Your task to perform on an android device: add a contact Image 0: 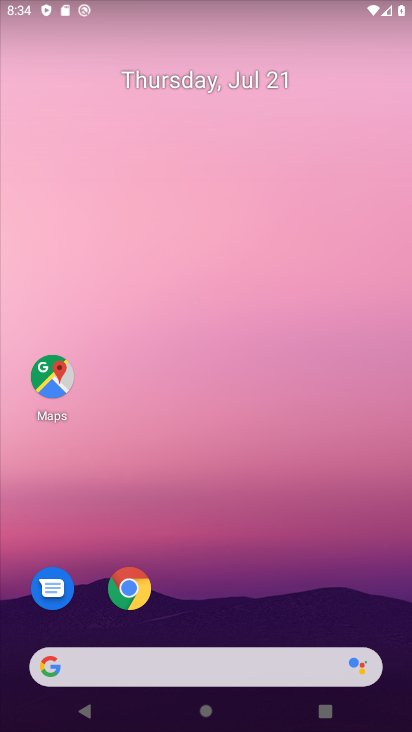
Step 0: drag from (218, 646) to (185, 201)
Your task to perform on an android device: add a contact Image 1: 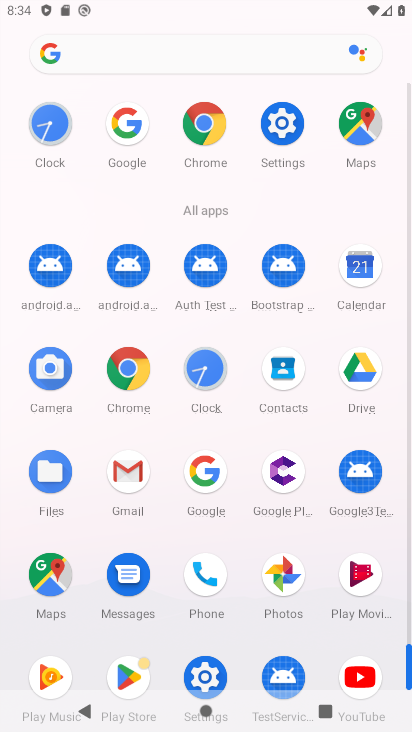
Step 1: click (279, 361)
Your task to perform on an android device: add a contact Image 2: 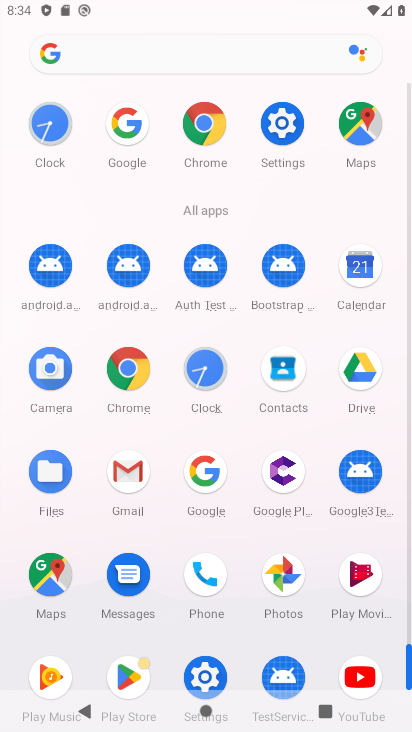
Step 2: click (275, 361)
Your task to perform on an android device: add a contact Image 3: 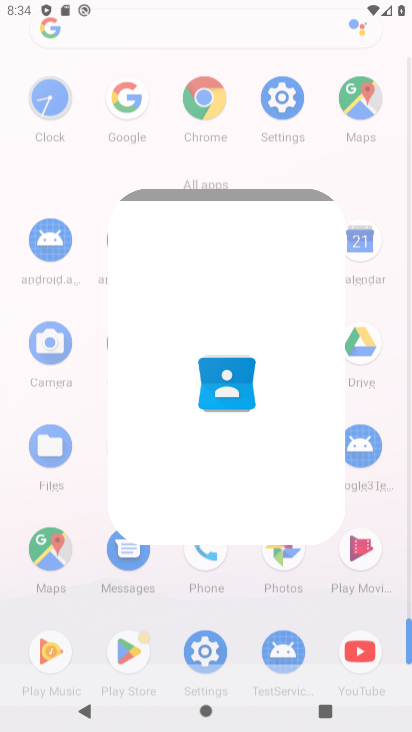
Step 3: click (268, 359)
Your task to perform on an android device: add a contact Image 4: 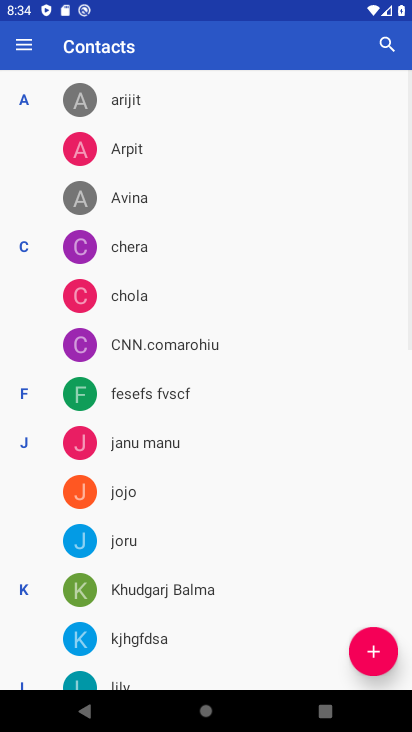
Step 4: click (378, 652)
Your task to perform on an android device: add a contact Image 5: 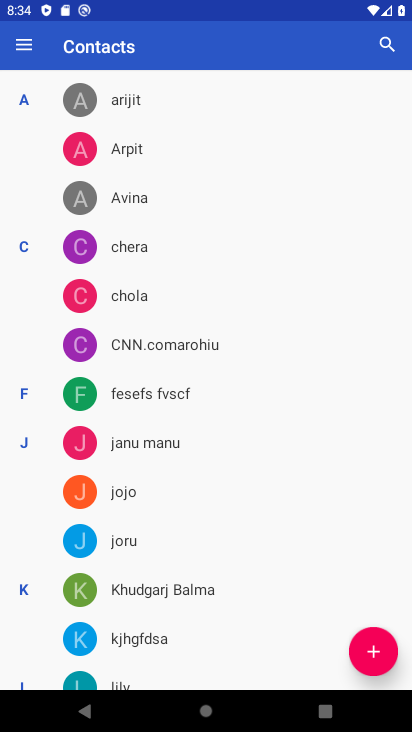
Step 5: click (380, 647)
Your task to perform on an android device: add a contact Image 6: 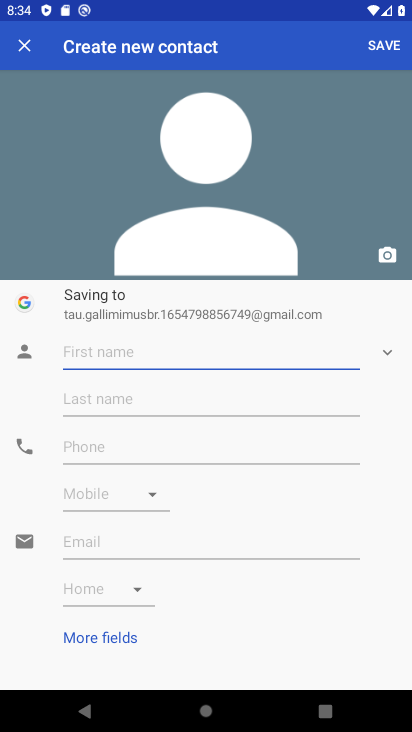
Step 6: type "cjhdsvhjdbhj"
Your task to perform on an android device: add a contact Image 7: 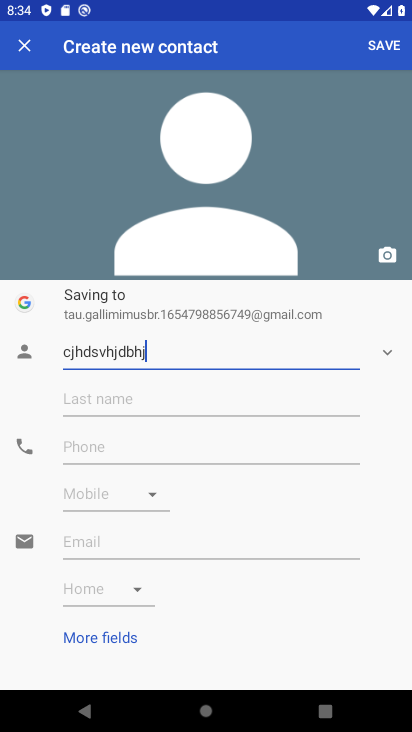
Step 7: click (64, 449)
Your task to perform on an android device: add a contact Image 8: 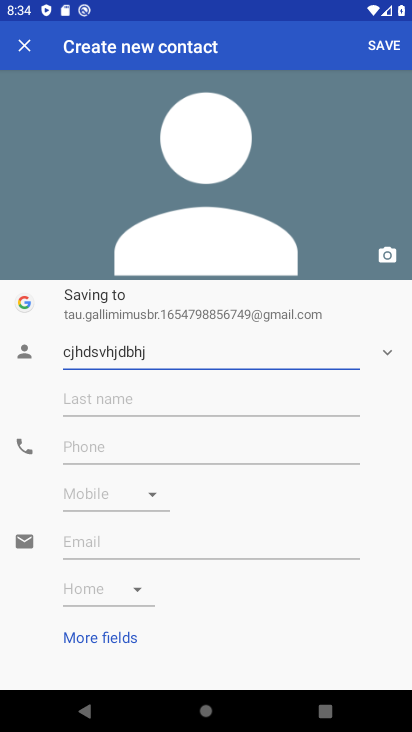
Step 8: click (64, 449)
Your task to perform on an android device: add a contact Image 9: 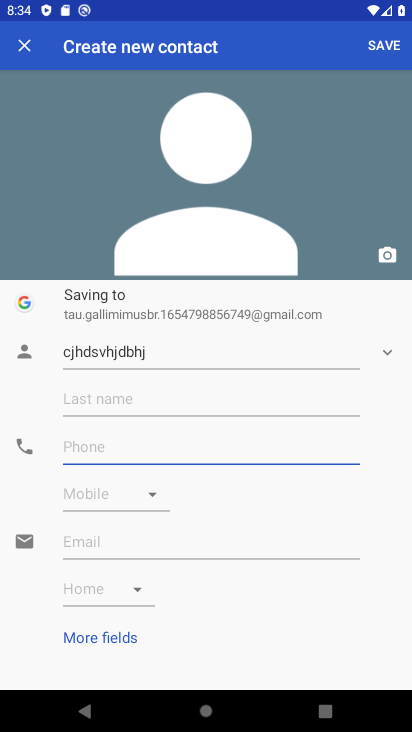
Step 9: type "7846789348932"
Your task to perform on an android device: add a contact Image 10: 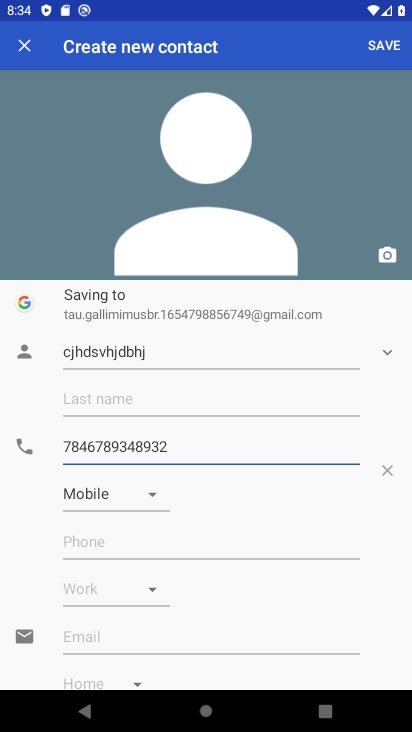
Step 10: click (400, 54)
Your task to perform on an android device: add a contact Image 11: 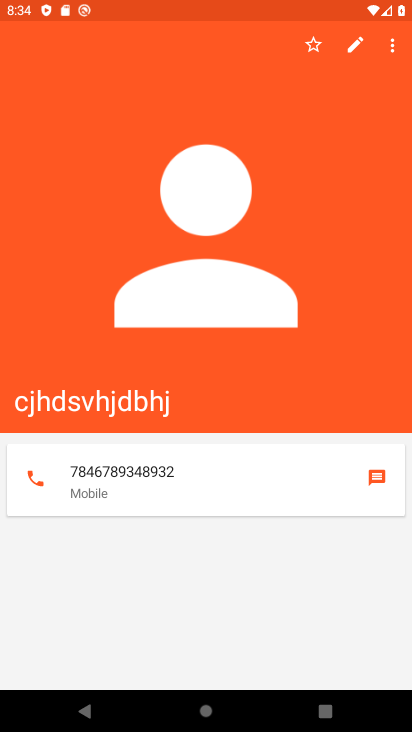
Step 11: task complete